Your task to perform on an android device: turn off wifi Image 0: 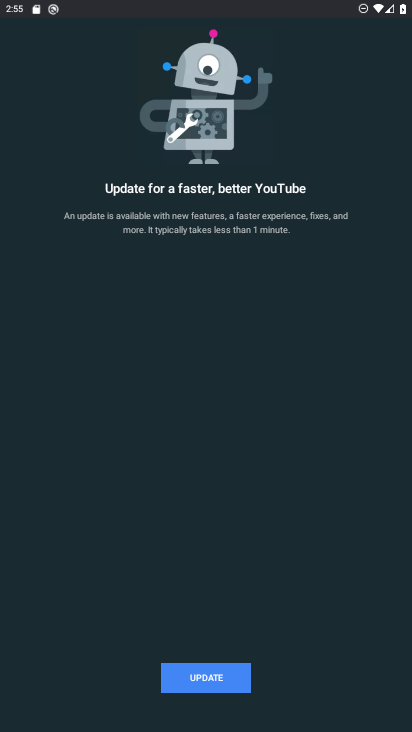
Step 0: press home button
Your task to perform on an android device: turn off wifi Image 1: 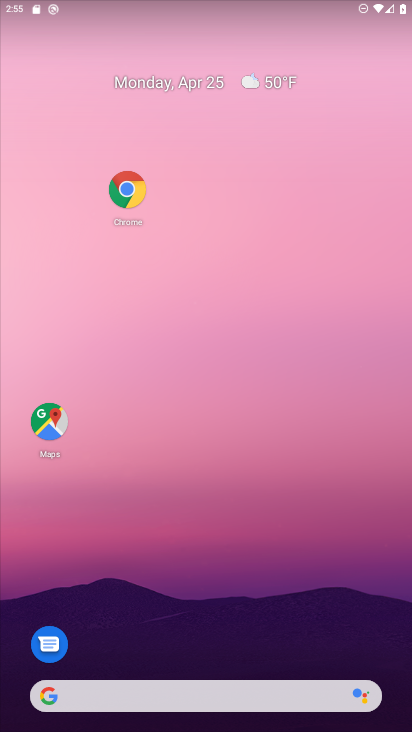
Step 1: drag from (102, 655) to (183, 261)
Your task to perform on an android device: turn off wifi Image 2: 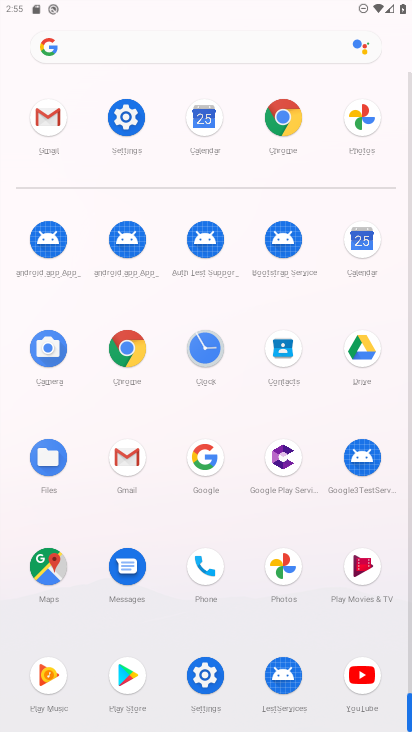
Step 2: click (205, 672)
Your task to perform on an android device: turn off wifi Image 3: 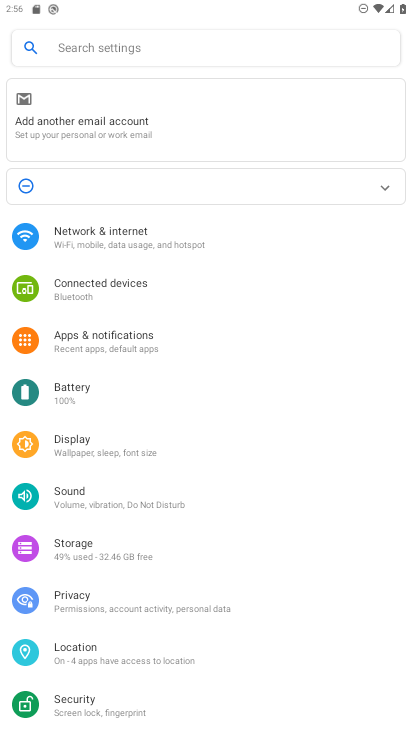
Step 3: click (139, 244)
Your task to perform on an android device: turn off wifi Image 4: 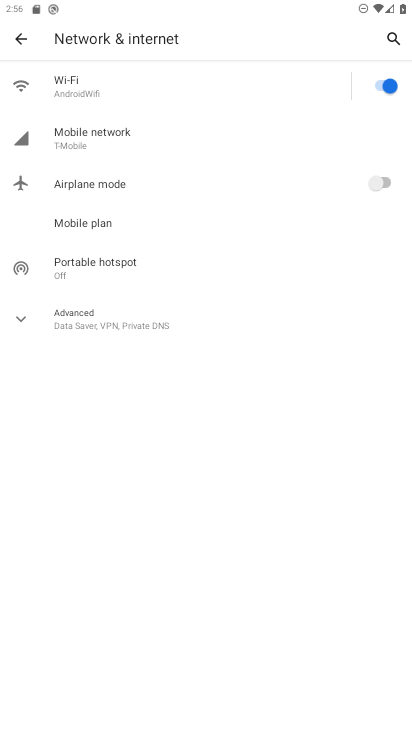
Step 4: click (134, 84)
Your task to perform on an android device: turn off wifi Image 5: 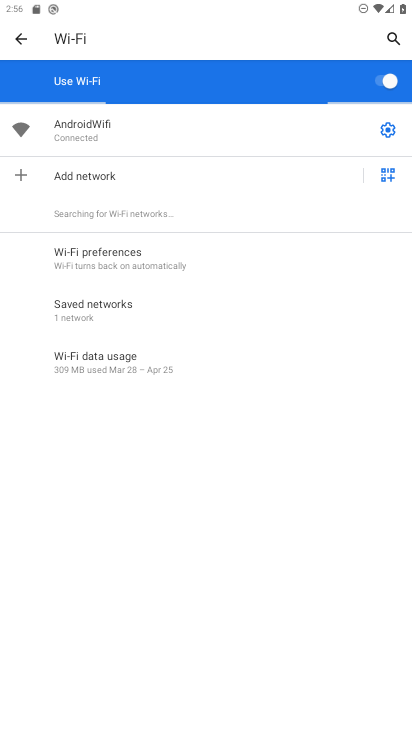
Step 5: task complete